Your task to perform on an android device: create a new album in the google photos Image 0: 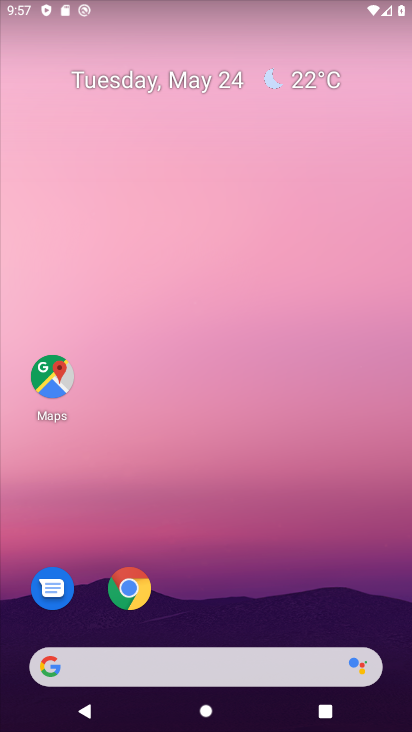
Step 0: drag from (299, 611) to (295, 7)
Your task to perform on an android device: create a new album in the google photos Image 1: 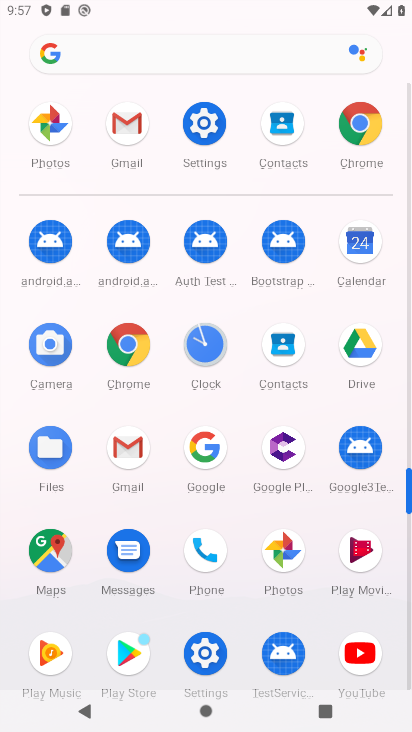
Step 1: click (42, 161)
Your task to perform on an android device: create a new album in the google photos Image 2: 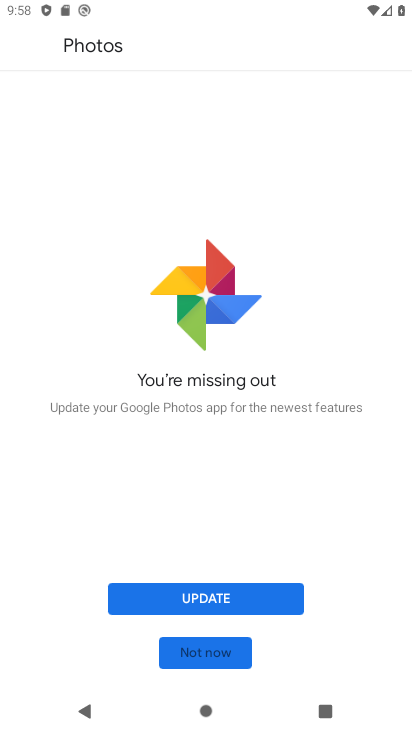
Step 2: click (208, 646)
Your task to perform on an android device: create a new album in the google photos Image 3: 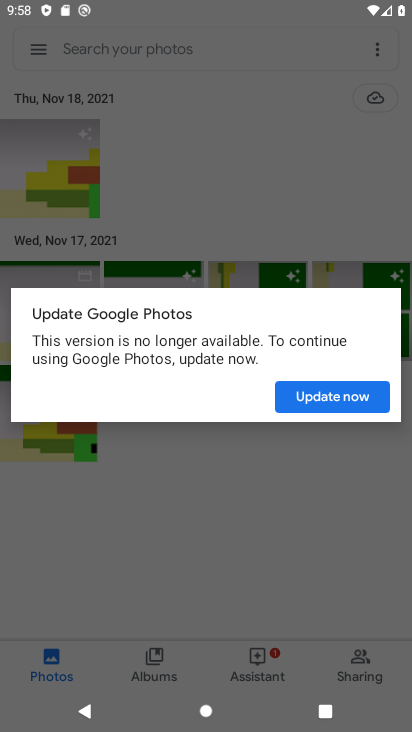
Step 3: click (312, 402)
Your task to perform on an android device: create a new album in the google photos Image 4: 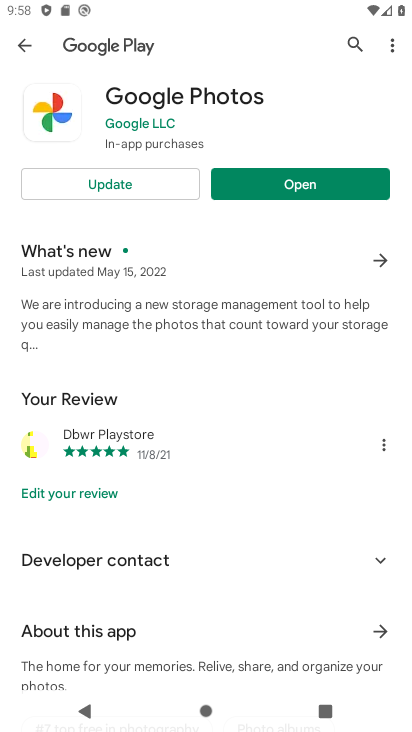
Step 4: click (293, 186)
Your task to perform on an android device: create a new album in the google photos Image 5: 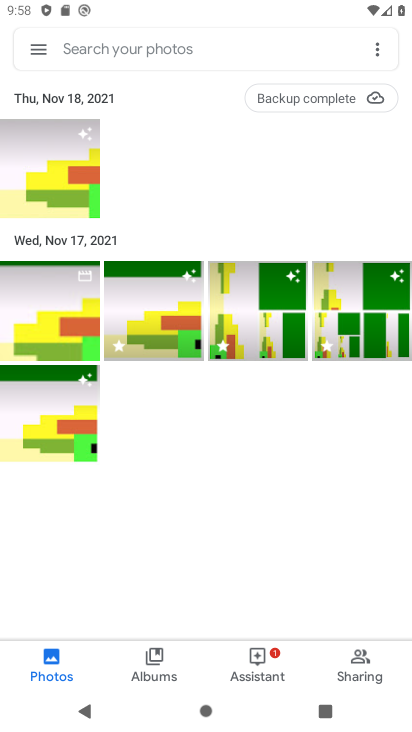
Step 5: click (120, 241)
Your task to perform on an android device: create a new album in the google photos Image 6: 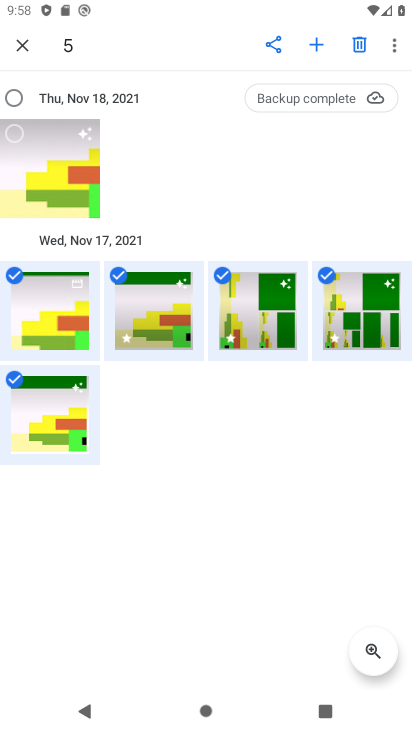
Step 6: click (332, 40)
Your task to perform on an android device: create a new album in the google photos Image 7: 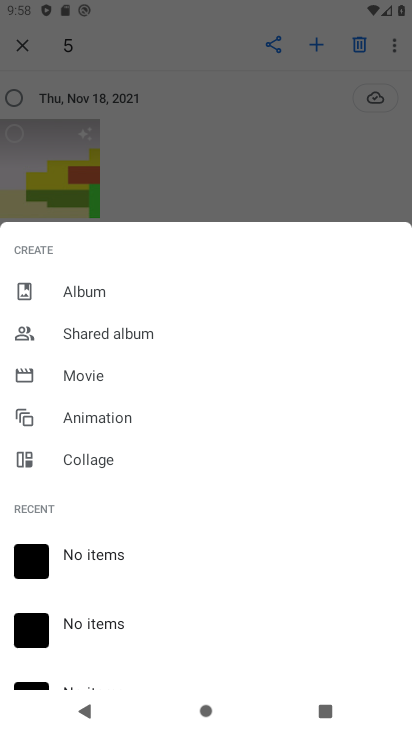
Step 7: click (70, 297)
Your task to perform on an android device: create a new album in the google photos Image 8: 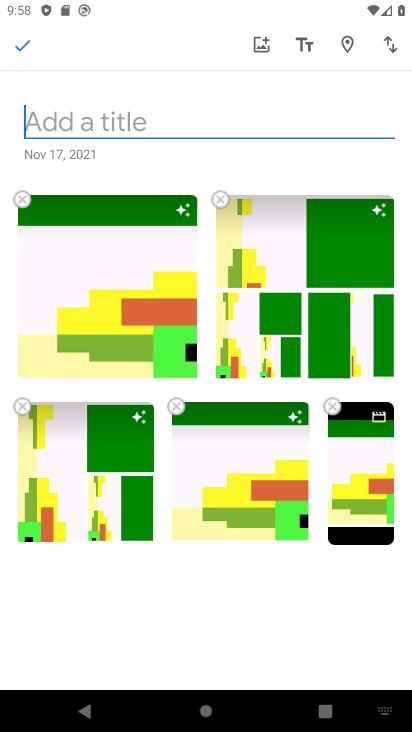
Step 8: type "khoya khoya"
Your task to perform on an android device: create a new album in the google photos Image 9: 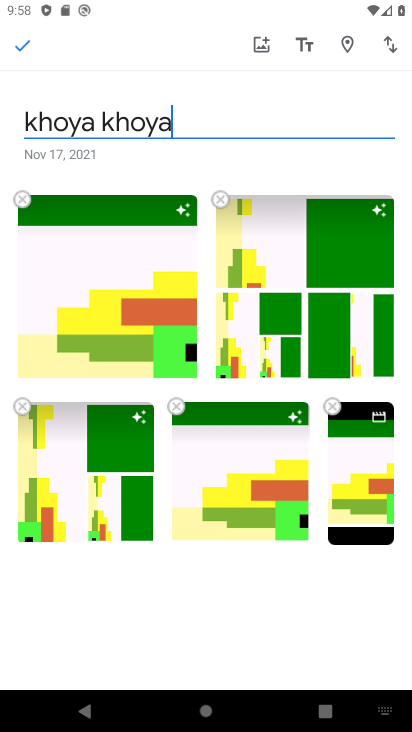
Step 9: click (25, 40)
Your task to perform on an android device: create a new album in the google photos Image 10: 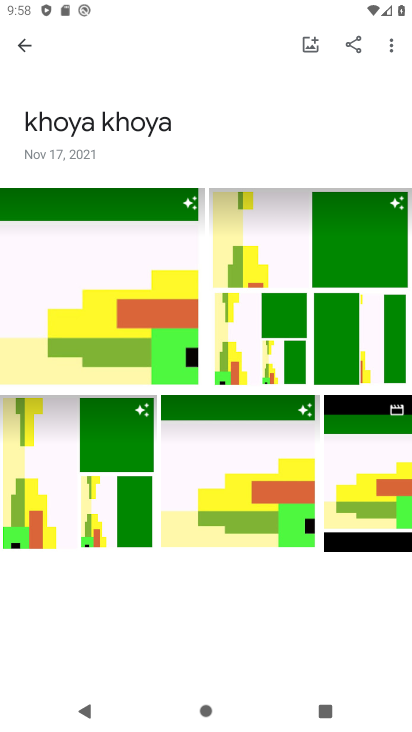
Step 10: task complete